Your task to perform on an android device: Go to notification settings Image 0: 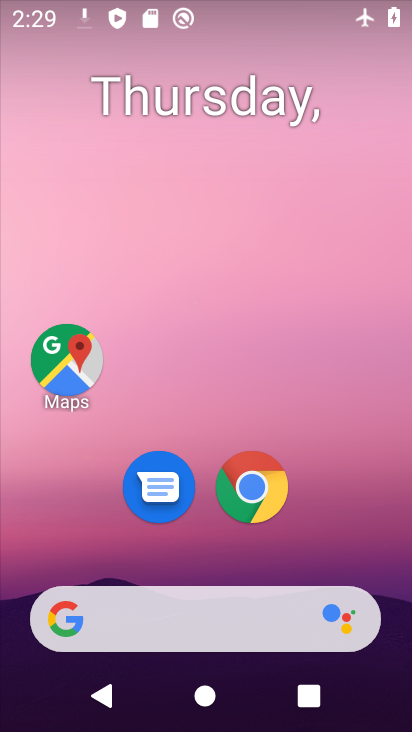
Step 0: drag from (358, 542) to (337, 111)
Your task to perform on an android device: Go to notification settings Image 1: 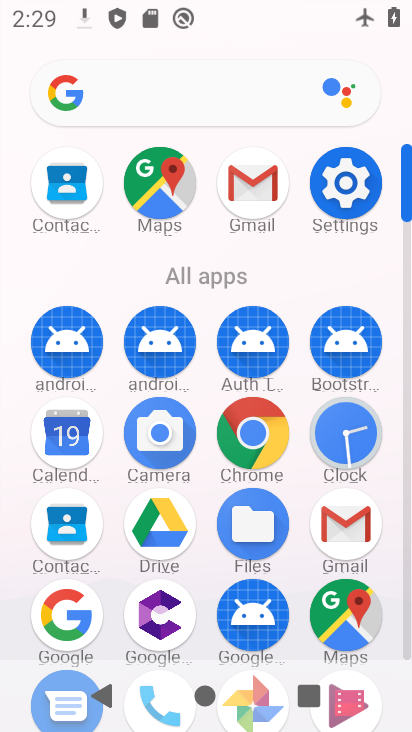
Step 1: click (340, 204)
Your task to perform on an android device: Go to notification settings Image 2: 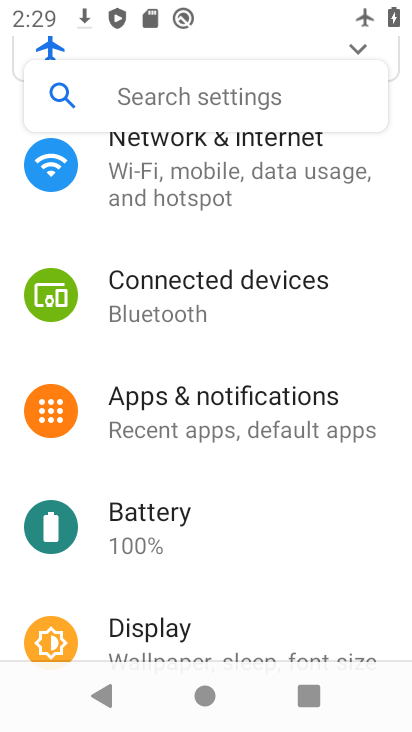
Step 2: click (175, 389)
Your task to perform on an android device: Go to notification settings Image 3: 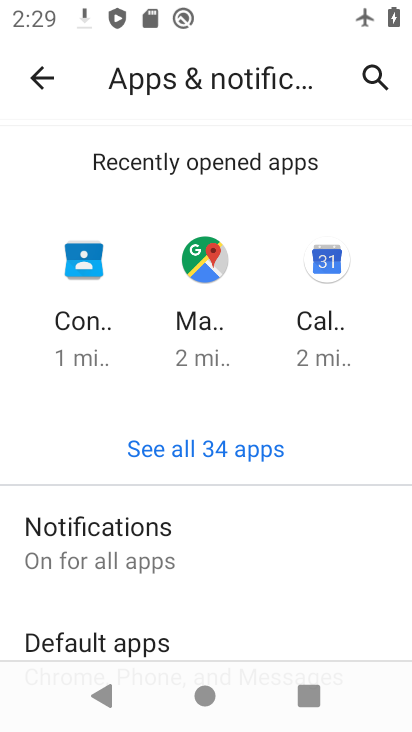
Step 3: task complete